Your task to perform on an android device: refresh tabs in the chrome app Image 0: 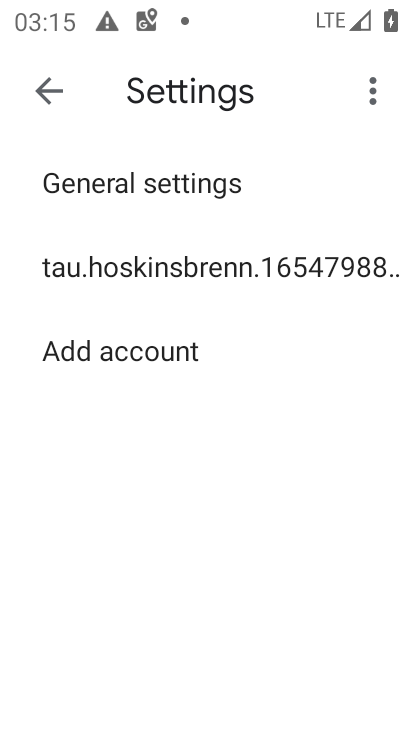
Step 0: press home button
Your task to perform on an android device: refresh tabs in the chrome app Image 1: 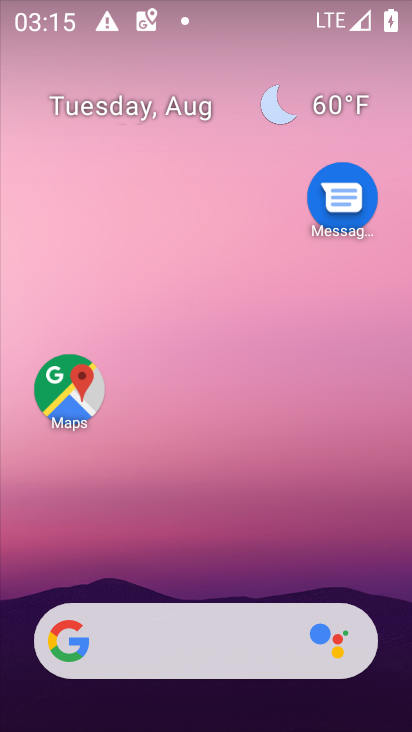
Step 1: drag from (203, 586) to (230, 58)
Your task to perform on an android device: refresh tabs in the chrome app Image 2: 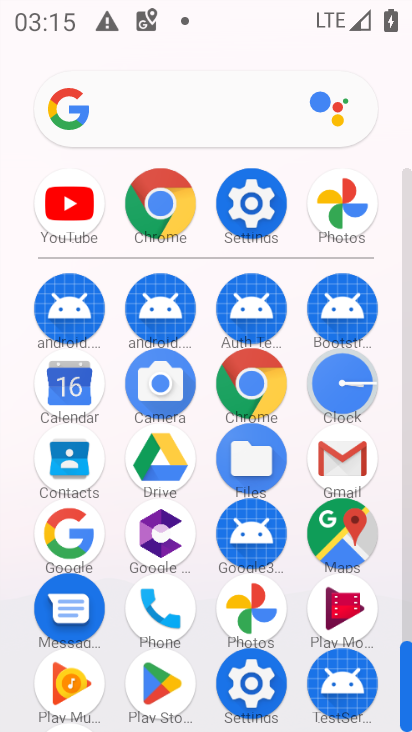
Step 2: click (168, 202)
Your task to perform on an android device: refresh tabs in the chrome app Image 3: 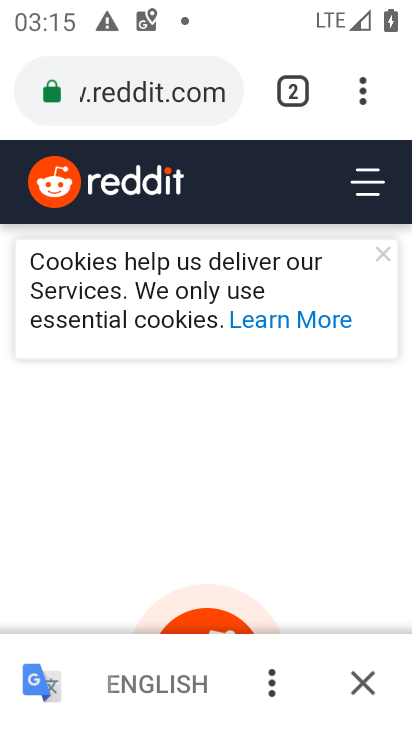
Step 3: click (366, 83)
Your task to perform on an android device: refresh tabs in the chrome app Image 4: 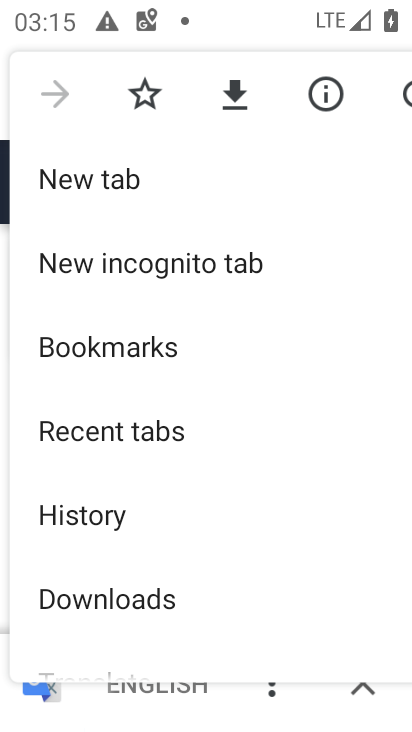
Step 4: click (392, 105)
Your task to perform on an android device: refresh tabs in the chrome app Image 5: 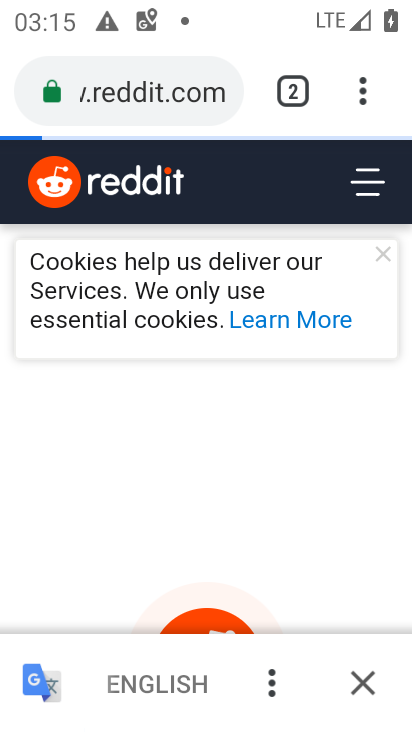
Step 5: task complete